Your task to perform on an android device: Open Maps and search for coffee Image 0: 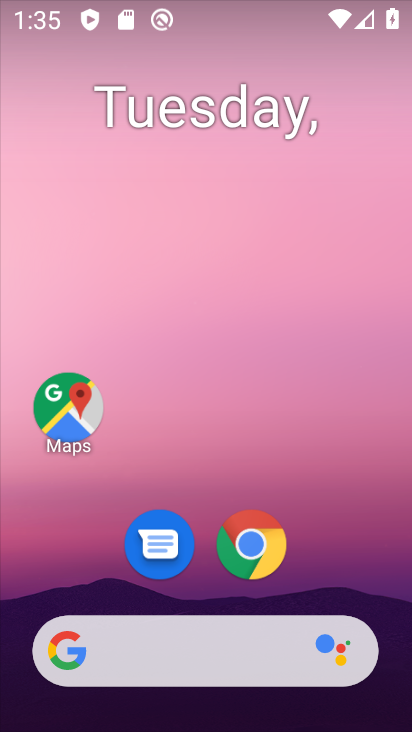
Step 0: drag from (309, 583) to (409, 117)
Your task to perform on an android device: Open Maps and search for coffee Image 1: 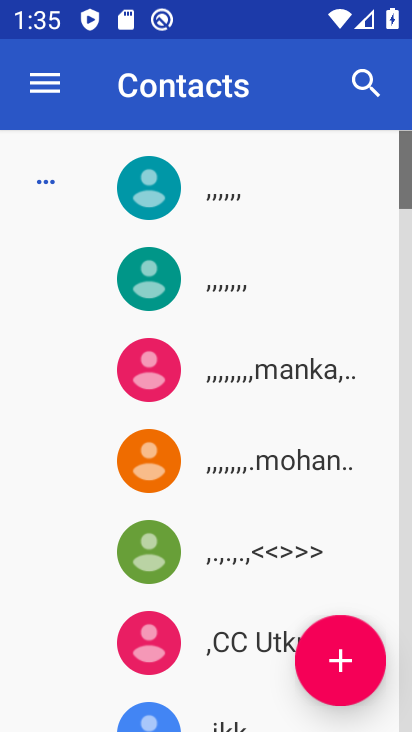
Step 1: press home button
Your task to perform on an android device: Open Maps and search for coffee Image 2: 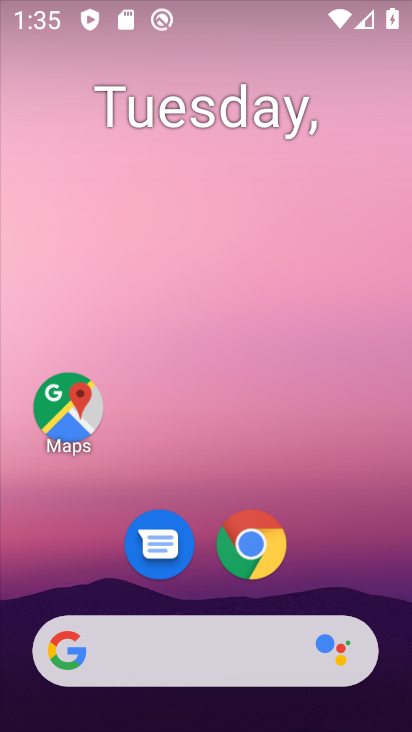
Step 2: click (81, 405)
Your task to perform on an android device: Open Maps and search for coffee Image 3: 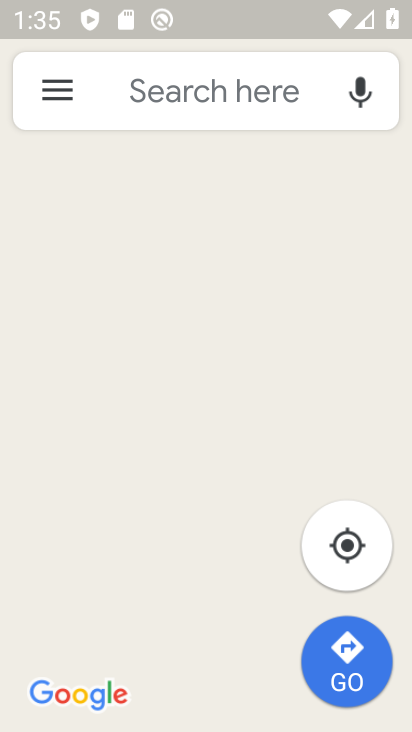
Step 3: click (242, 87)
Your task to perform on an android device: Open Maps and search for coffee Image 4: 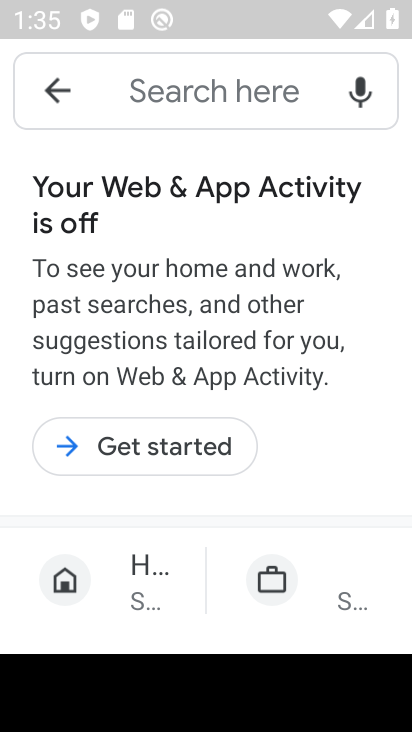
Step 4: drag from (264, 511) to (302, 182)
Your task to perform on an android device: Open Maps and search for coffee Image 5: 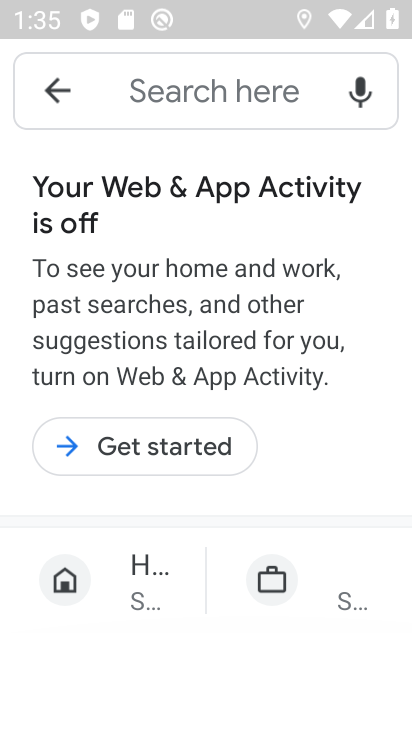
Step 5: click (194, 88)
Your task to perform on an android device: Open Maps and search for coffee Image 6: 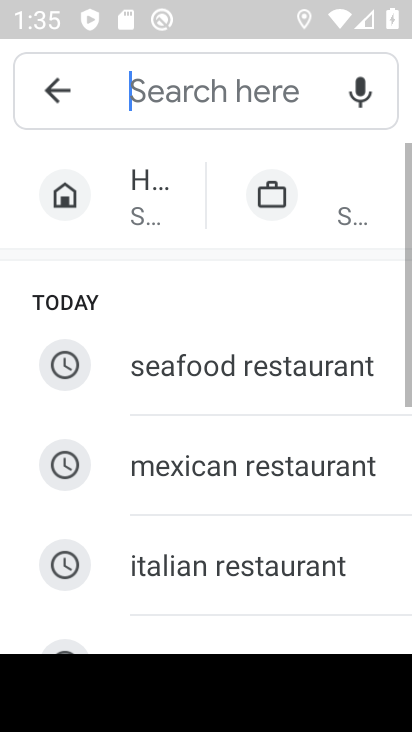
Step 6: type "coffee"
Your task to perform on an android device: Open Maps and search for coffee Image 7: 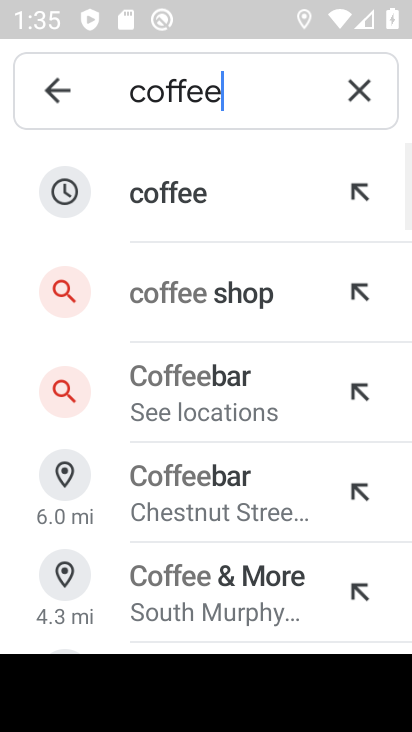
Step 7: task complete